Your task to perform on an android device: turn on improve location accuracy Image 0: 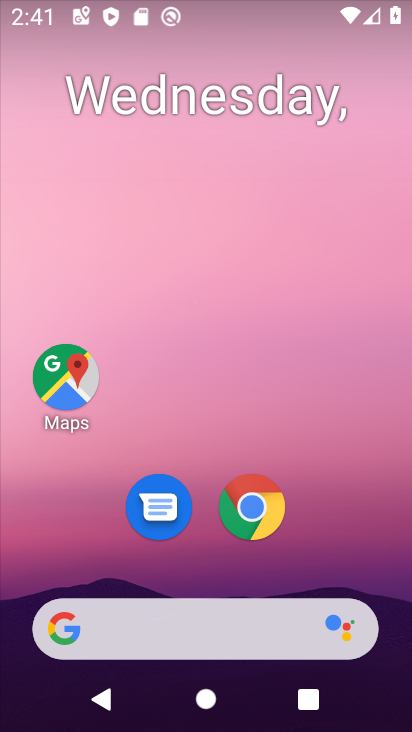
Step 0: drag from (332, 531) to (411, 155)
Your task to perform on an android device: turn on improve location accuracy Image 1: 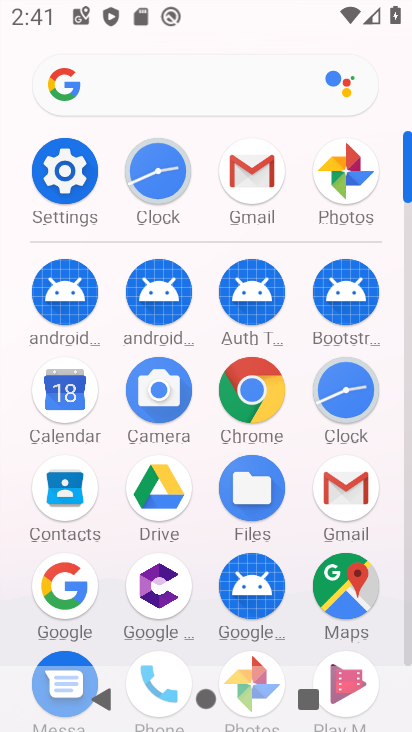
Step 1: click (62, 186)
Your task to perform on an android device: turn on improve location accuracy Image 2: 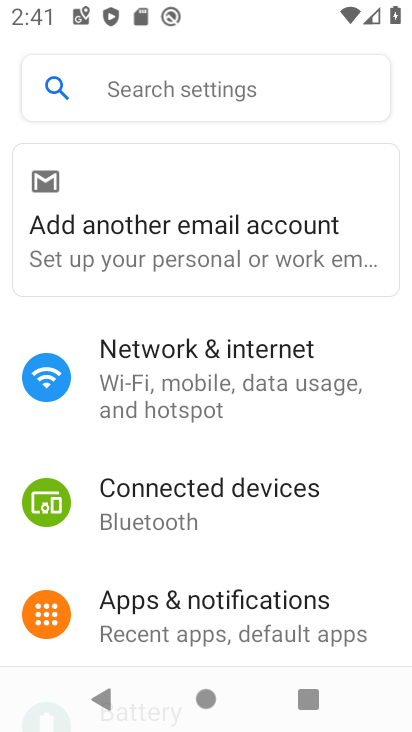
Step 2: drag from (198, 494) to (204, 158)
Your task to perform on an android device: turn on improve location accuracy Image 3: 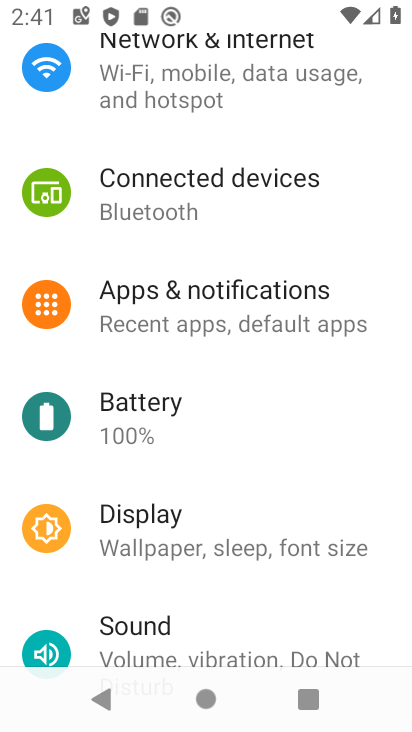
Step 3: drag from (211, 453) to (201, 155)
Your task to perform on an android device: turn on improve location accuracy Image 4: 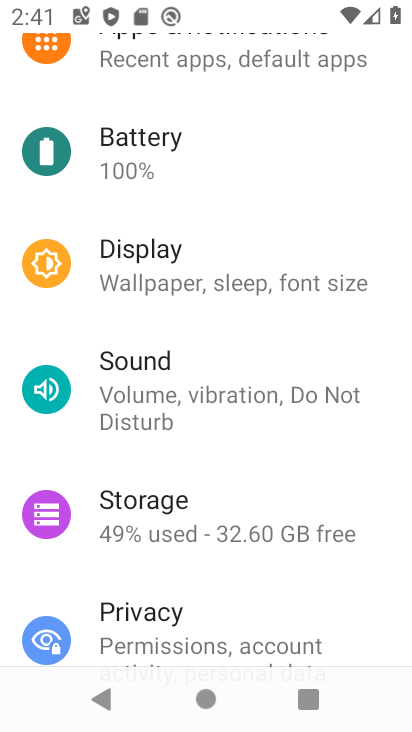
Step 4: drag from (219, 433) to (215, 112)
Your task to perform on an android device: turn on improve location accuracy Image 5: 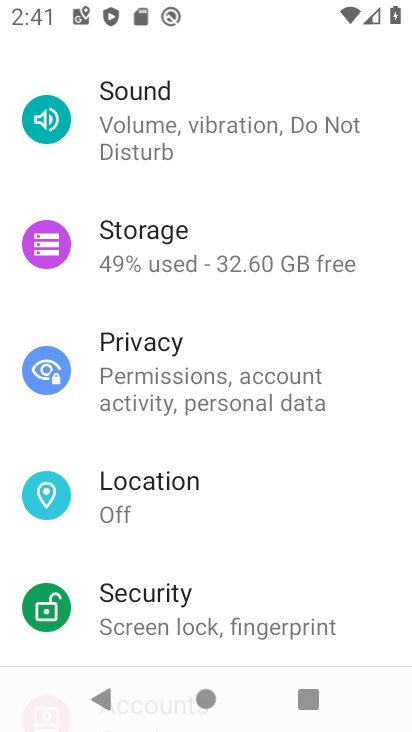
Step 5: click (208, 499)
Your task to perform on an android device: turn on improve location accuracy Image 6: 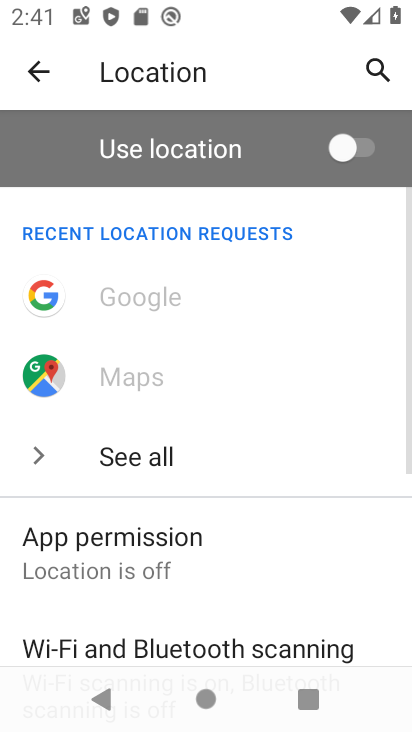
Step 6: drag from (228, 579) to (222, 280)
Your task to perform on an android device: turn on improve location accuracy Image 7: 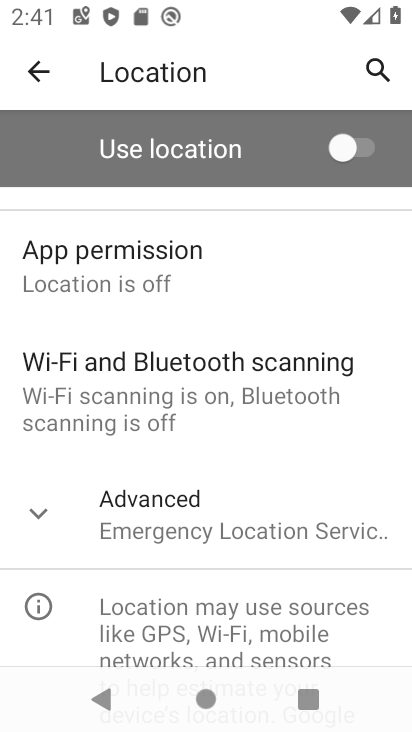
Step 7: click (216, 527)
Your task to perform on an android device: turn on improve location accuracy Image 8: 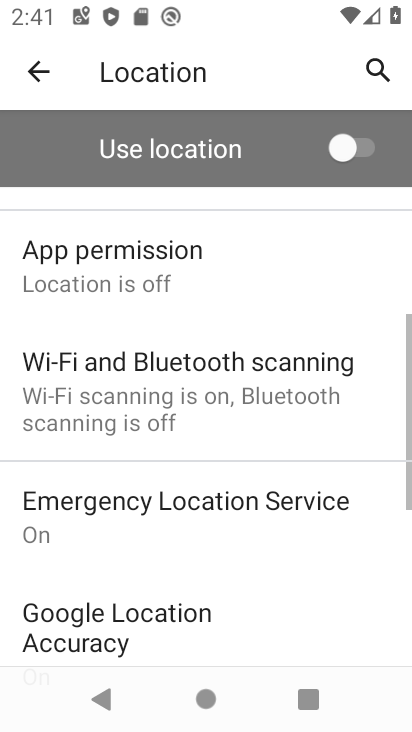
Step 8: drag from (235, 589) to (208, 260)
Your task to perform on an android device: turn on improve location accuracy Image 9: 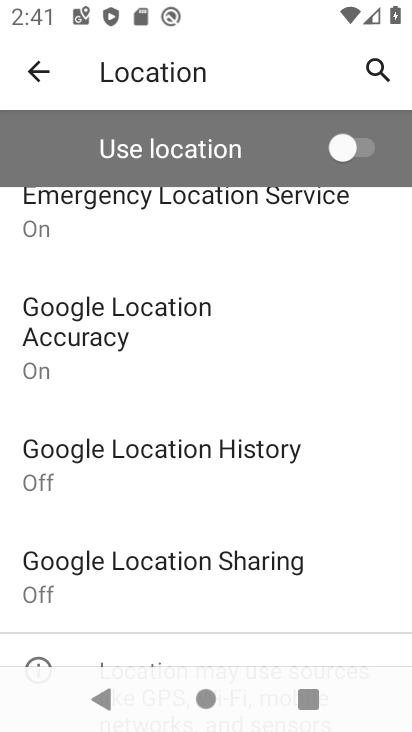
Step 9: drag from (231, 527) to (201, 177)
Your task to perform on an android device: turn on improve location accuracy Image 10: 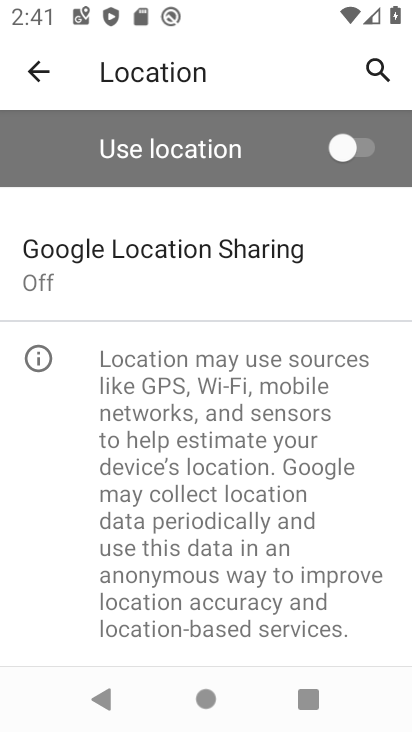
Step 10: drag from (228, 488) to (230, 189)
Your task to perform on an android device: turn on improve location accuracy Image 11: 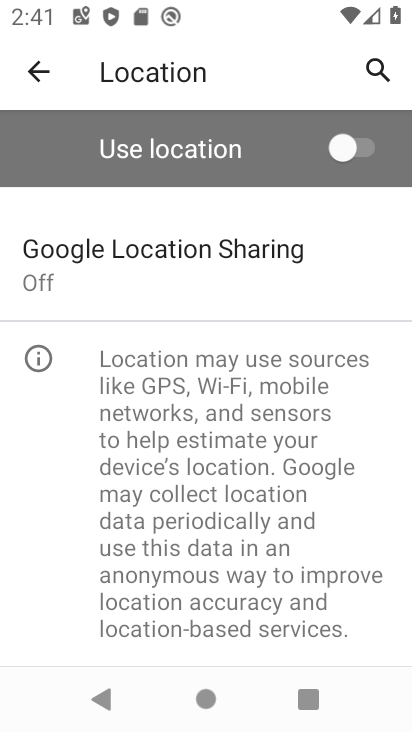
Step 11: drag from (262, 248) to (264, 547)
Your task to perform on an android device: turn on improve location accuracy Image 12: 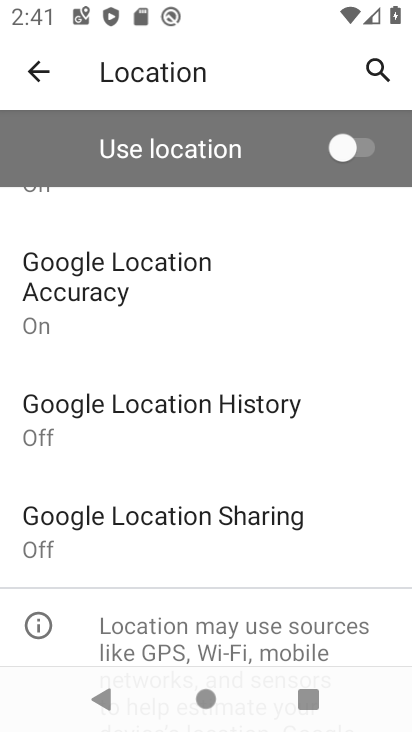
Step 12: click (149, 280)
Your task to perform on an android device: turn on improve location accuracy Image 13: 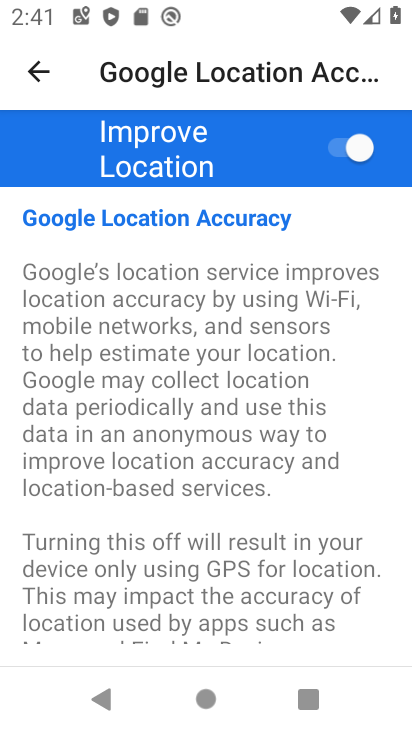
Step 13: task complete